Your task to perform on an android device: Go to battery settings Image 0: 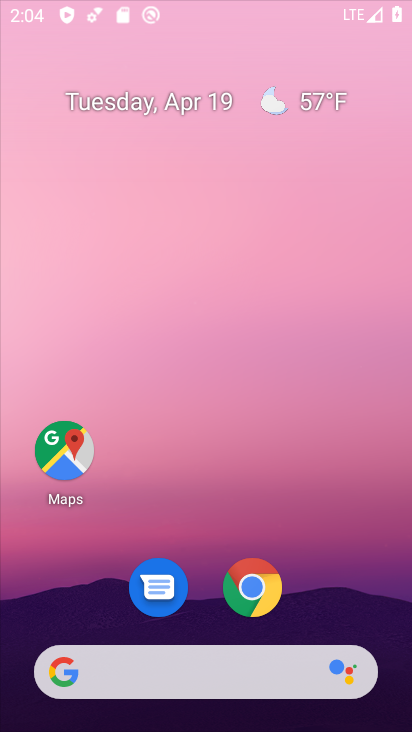
Step 0: click (235, 237)
Your task to perform on an android device: Go to battery settings Image 1: 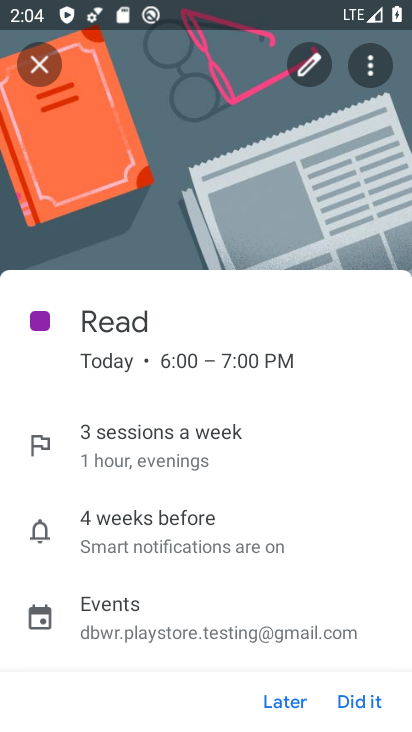
Step 1: press home button
Your task to perform on an android device: Go to battery settings Image 2: 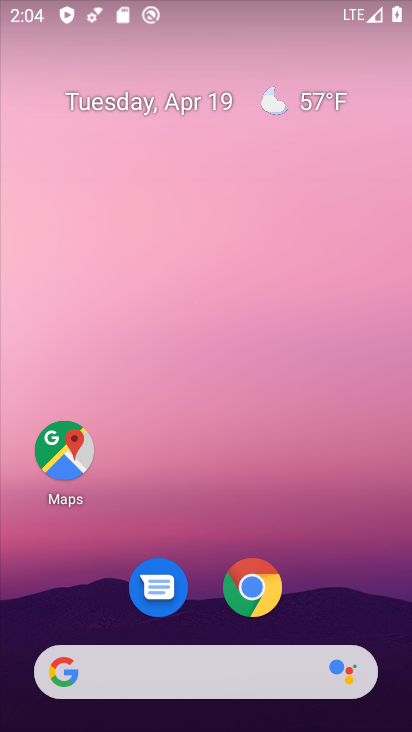
Step 2: drag from (271, 640) to (187, 265)
Your task to perform on an android device: Go to battery settings Image 3: 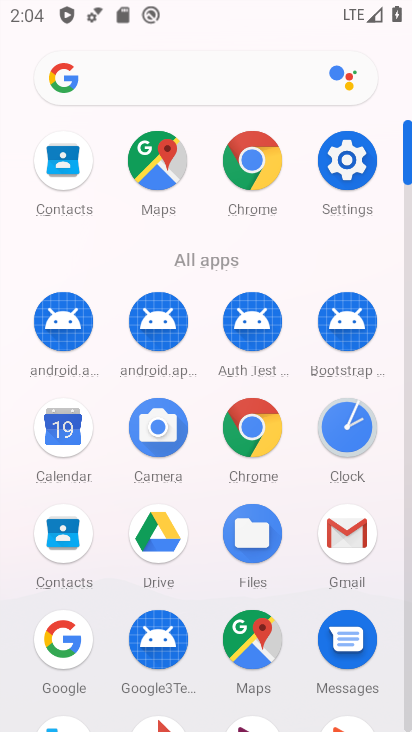
Step 3: click (341, 163)
Your task to perform on an android device: Go to battery settings Image 4: 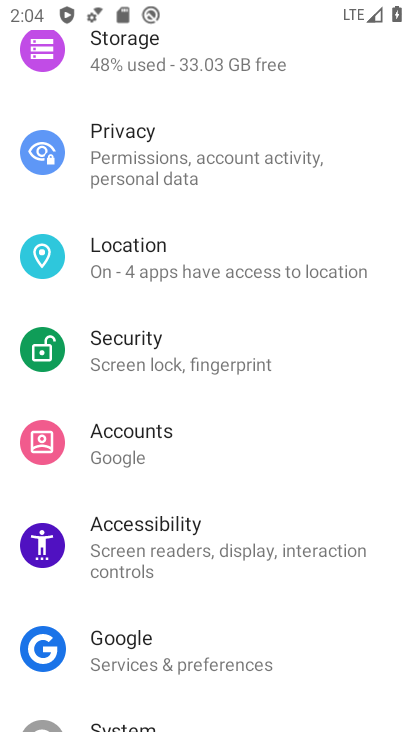
Step 4: drag from (214, 165) to (191, 416)
Your task to perform on an android device: Go to battery settings Image 5: 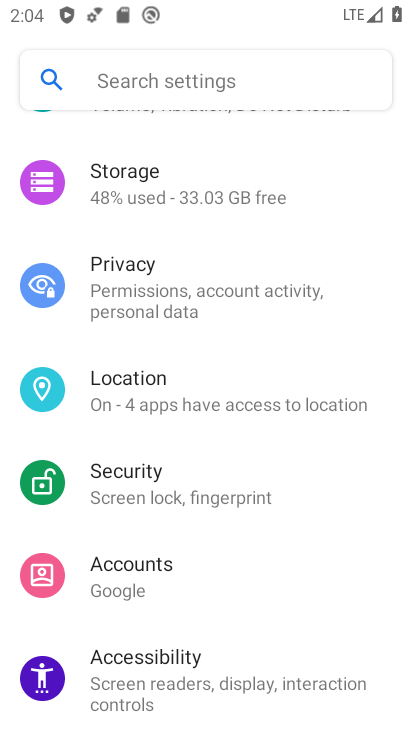
Step 5: drag from (200, 217) to (186, 472)
Your task to perform on an android device: Go to battery settings Image 6: 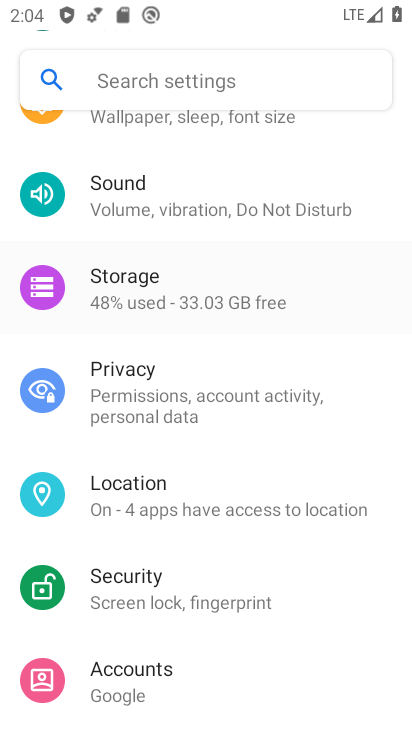
Step 6: drag from (178, 290) to (193, 484)
Your task to perform on an android device: Go to battery settings Image 7: 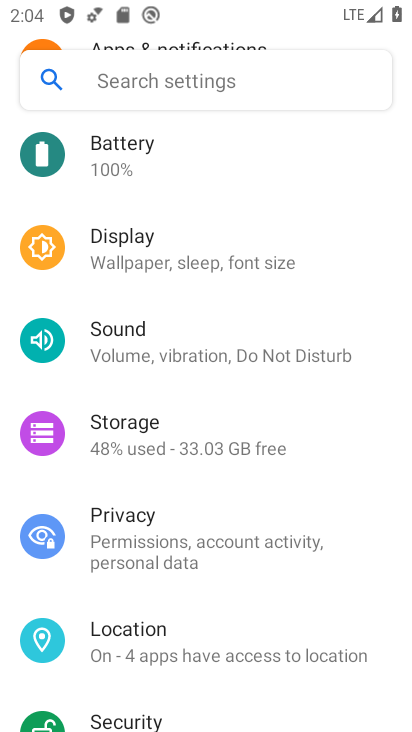
Step 7: click (118, 158)
Your task to perform on an android device: Go to battery settings Image 8: 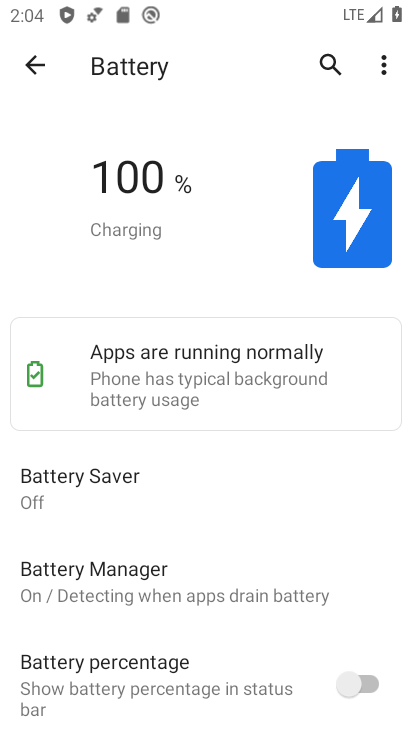
Step 8: drag from (138, 625) to (154, 313)
Your task to perform on an android device: Go to battery settings Image 9: 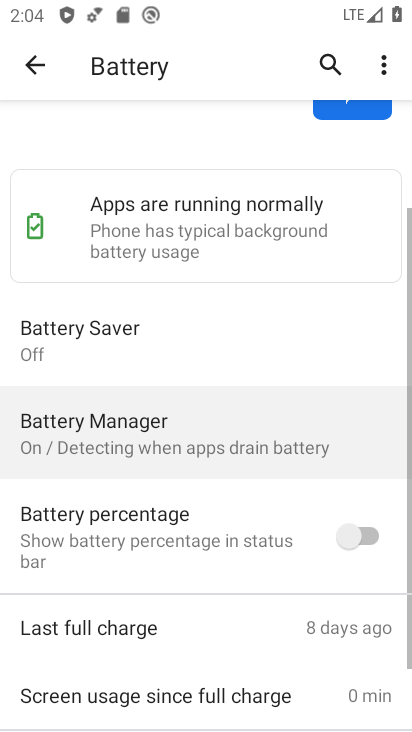
Step 9: drag from (180, 544) to (215, 314)
Your task to perform on an android device: Go to battery settings Image 10: 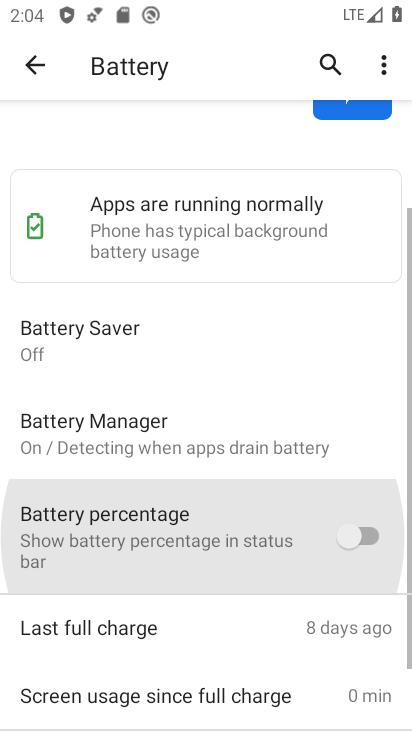
Step 10: drag from (230, 564) to (190, 266)
Your task to perform on an android device: Go to battery settings Image 11: 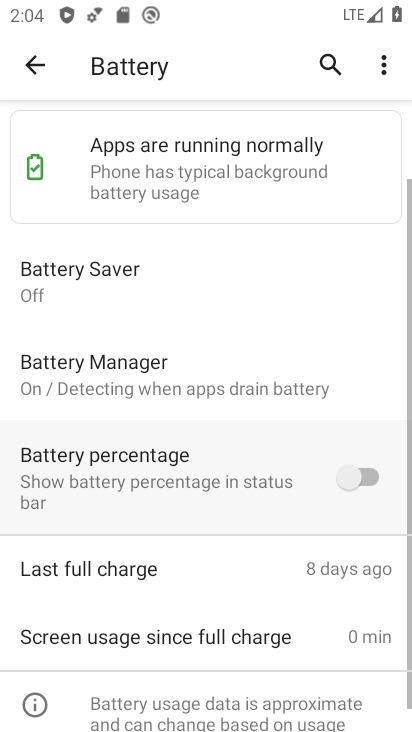
Step 11: click (185, 274)
Your task to perform on an android device: Go to battery settings Image 12: 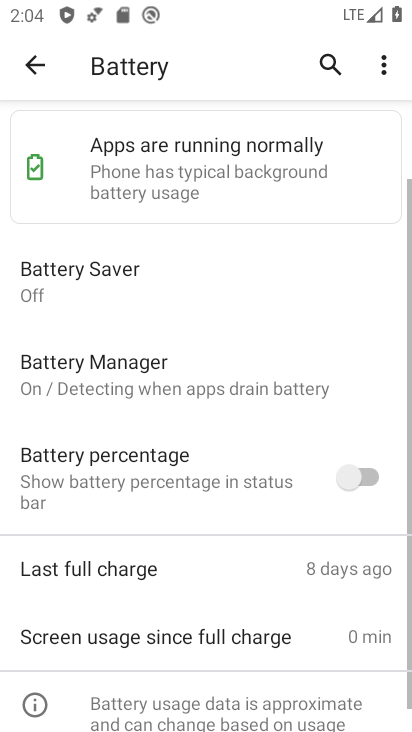
Step 12: drag from (186, 572) to (192, 242)
Your task to perform on an android device: Go to battery settings Image 13: 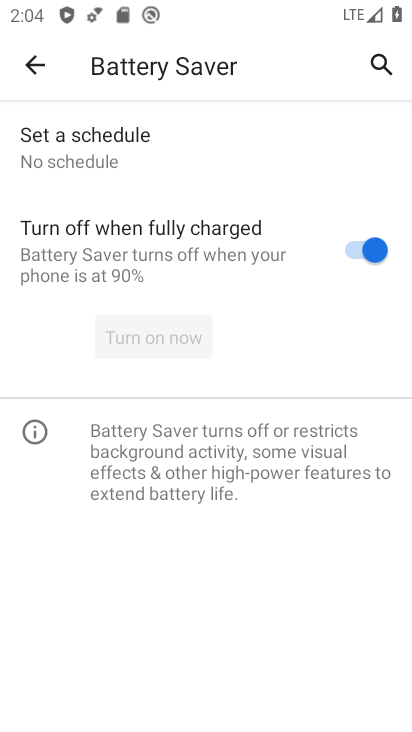
Step 13: drag from (170, 428) to (182, 306)
Your task to perform on an android device: Go to battery settings Image 14: 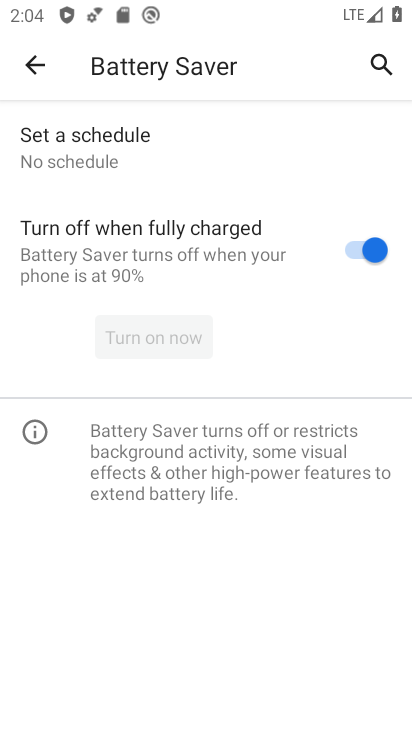
Step 14: drag from (219, 521) to (219, 290)
Your task to perform on an android device: Go to battery settings Image 15: 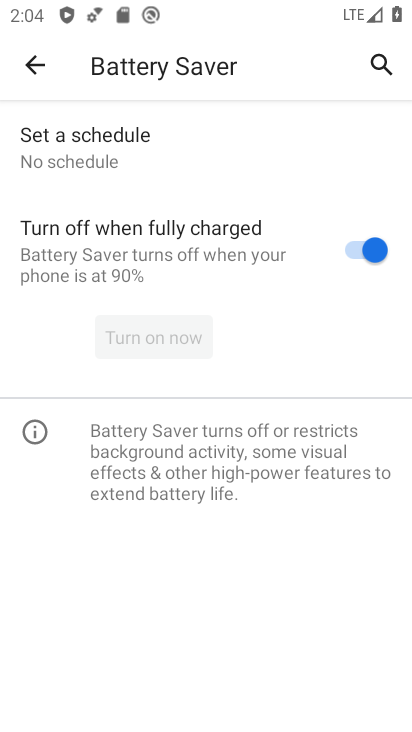
Step 15: click (32, 60)
Your task to perform on an android device: Go to battery settings Image 16: 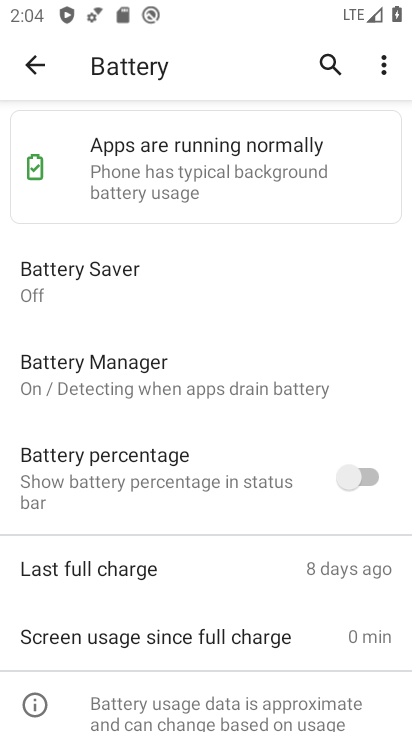
Step 16: click (32, 63)
Your task to perform on an android device: Go to battery settings Image 17: 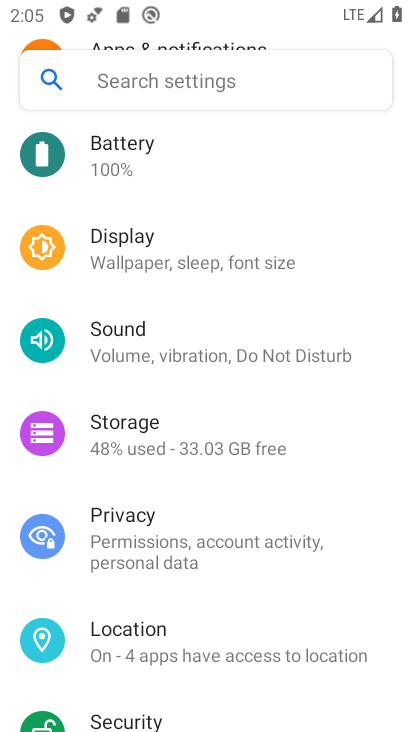
Step 17: click (118, 156)
Your task to perform on an android device: Go to battery settings Image 18: 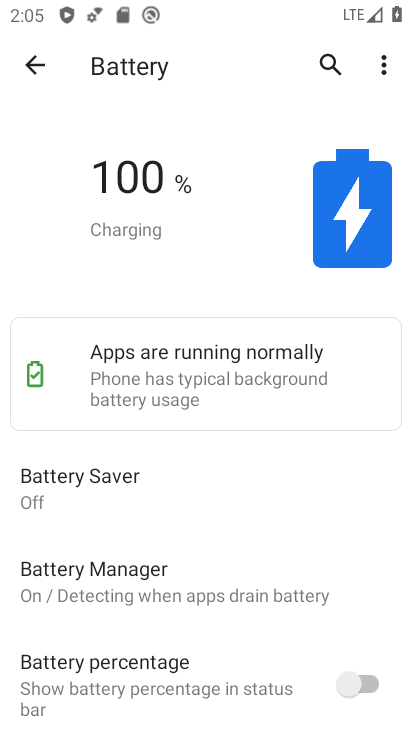
Step 18: task complete